Your task to perform on an android device: open chrome and create a bookmark for the current page Image 0: 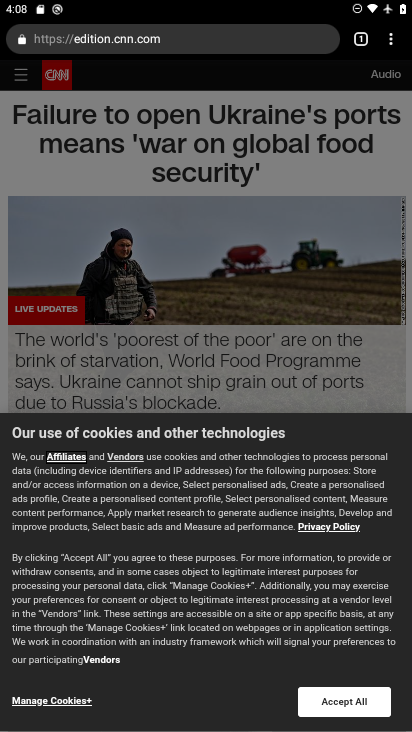
Step 0: press back button
Your task to perform on an android device: open chrome and create a bookmark for the current page Image 1: 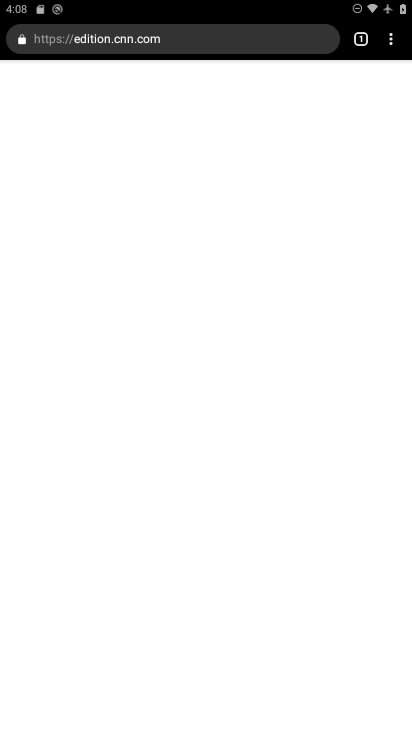
Step 1: press home button
Your task to perform on an android device: open chrome and create a bookmark for the current page Image 2: 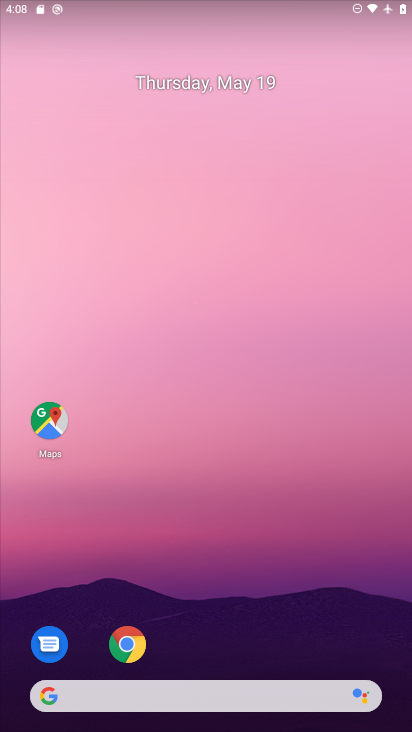
Step 2: drag from (290, 603) to (234, 4)
Your task to perform on an android device: open chrome and create a bookmark for the current page Image 3: 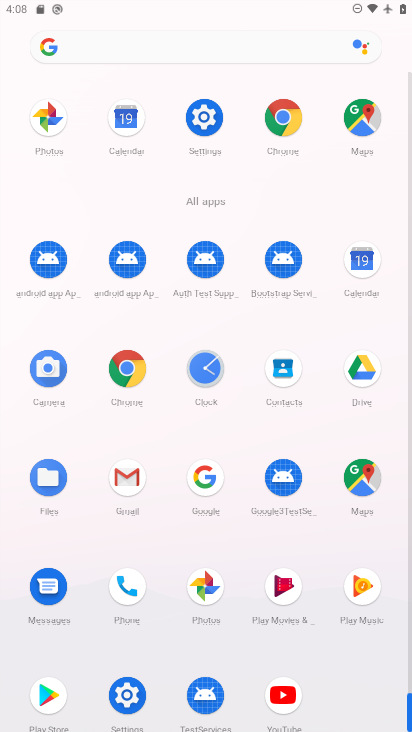
Step 3: click (284, 116)
Your task to perform on an android device: open chrome and create a bookmark for the current page Image 4: 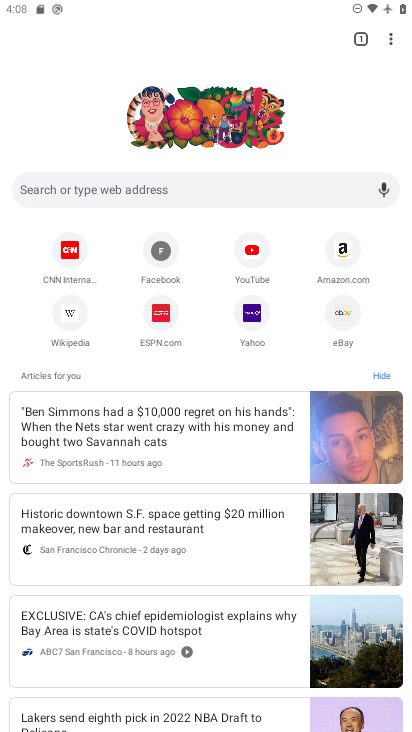
Step 4: drag from (395, 30) to (273, 152)
Your task to perform on an android device: open chrome and create a bookmark for the current page Image 5: 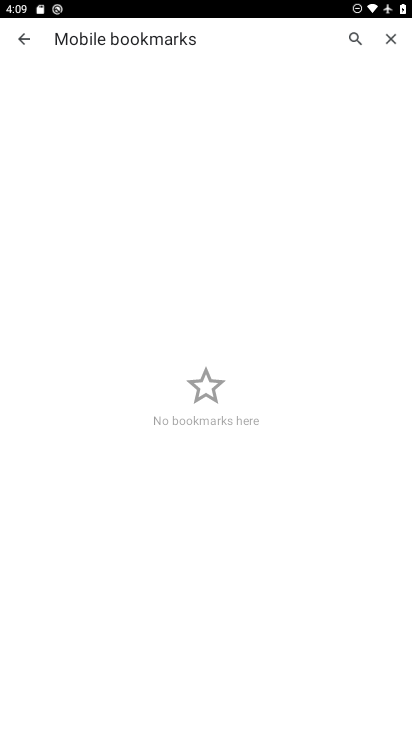
Step 5: click (19, 31)
Your task to perform on an android device: open chrome and create a bookmark for the current page Image 6: 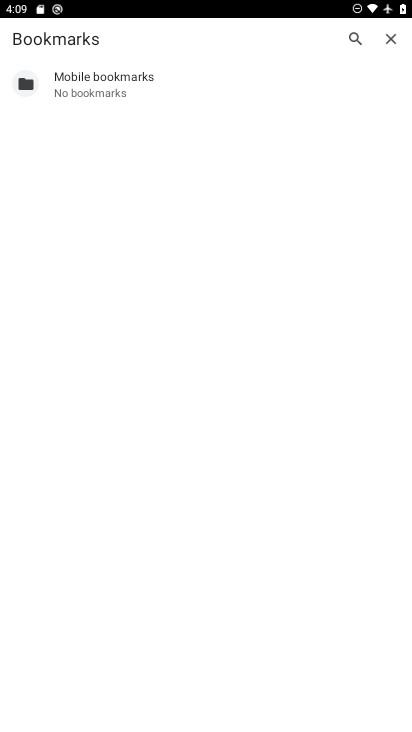
Step 6: task complete